Your task to perform on an android device: empty trash in the gmail app Image 0: 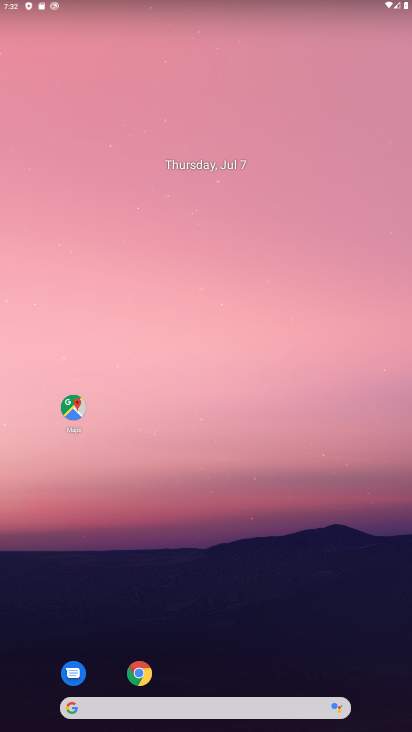
Step 0: drag from (267, 655) to (261, 153)
Your task to perform on an android device: empty trash in the gmail app Image 1: 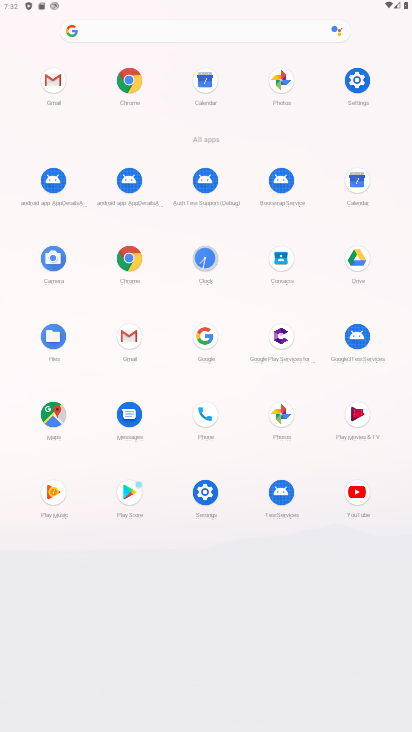
Step 1: click (54, 81)
Your task to perform on an android device: empty trash in the gmail app Image 2: 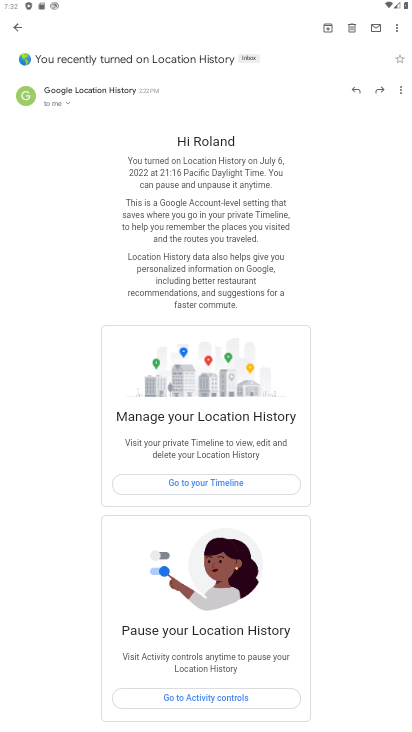
Step 2: press back button
Your task to perform on an android device: empty trash in the gmail app Image 3: 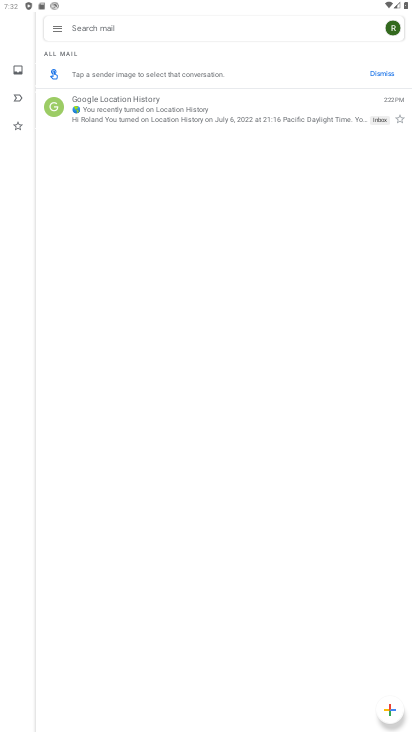
Step 3: click (59, 30)
Your task to perform on an android device: empty trash in the gmail app Image 4: 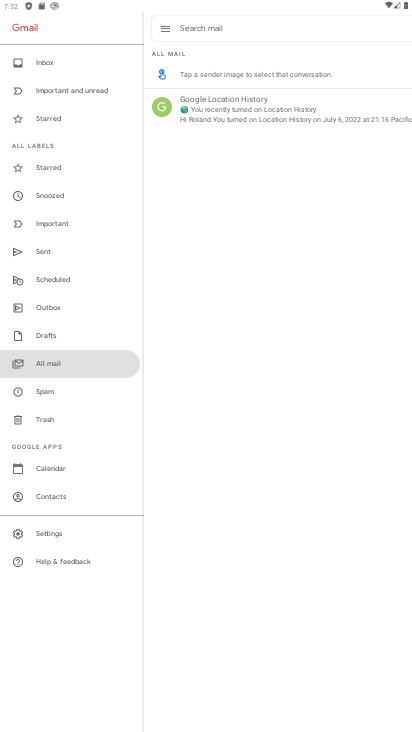
Step 4: click (48, 420)
Your task to perform on an android device: empty trash in the gmail app Image 5: 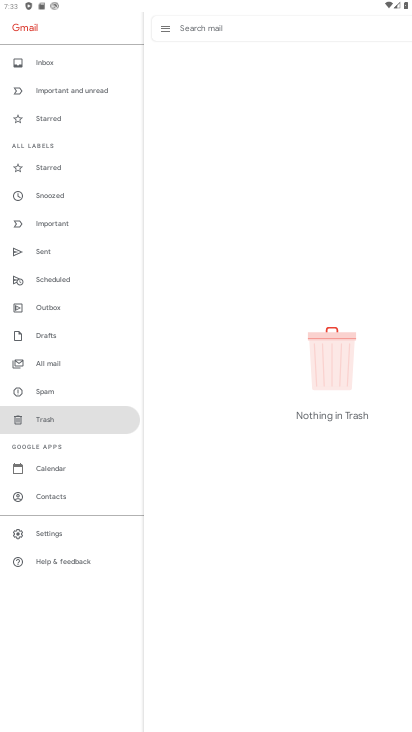
Step 5: task complete